Your task to perform on an android device: Empty the shopping cart on newegg. Search for "razer blade" on newegg, select the first entry, and add it to the cart. Image 0: 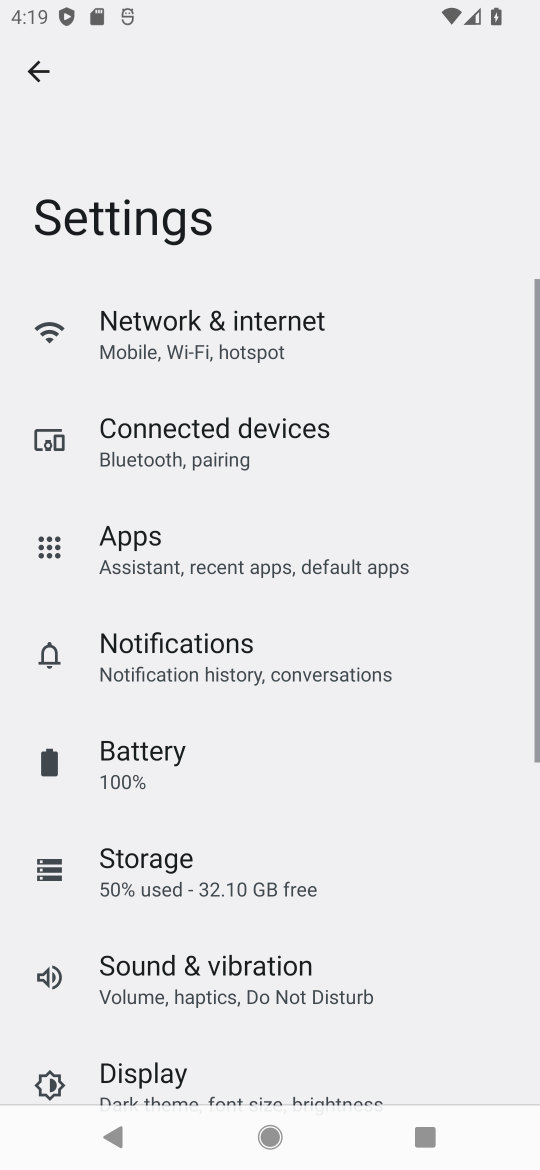
Step 0: press home button
Your task to perform on an android device: Empty the shopping cart on newegg. Search for "razer blade" on newegg, select the first entry, and add it to the cart. Image 1: 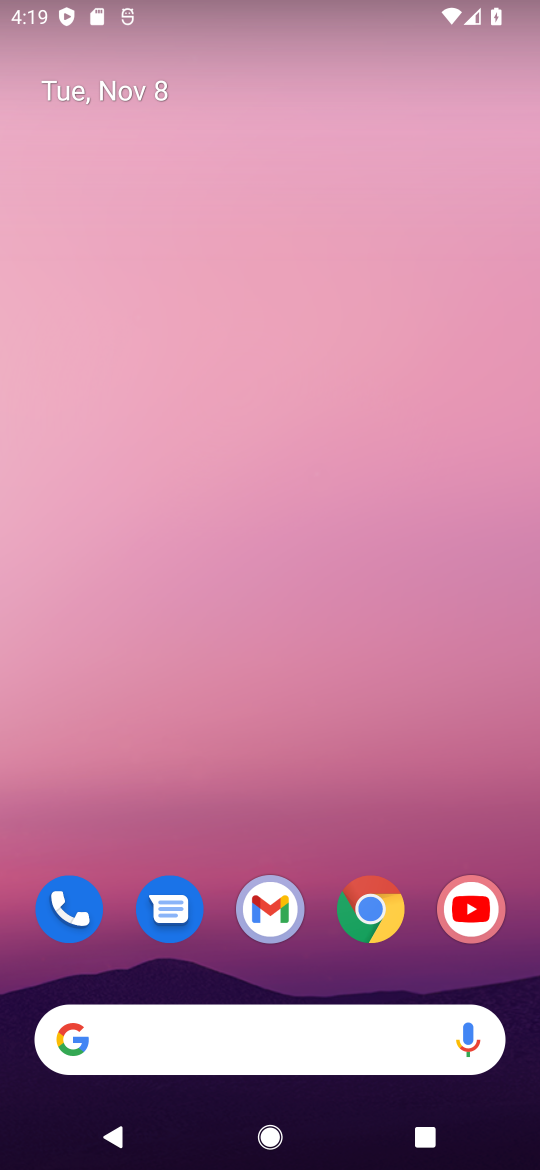
Step 1: click (378, 913)
Your task to perform on an android device: Empty the shopping cart on newegg. Search for "razer blade" on newegg, select the first entry, and add it to the cart. Image 2: 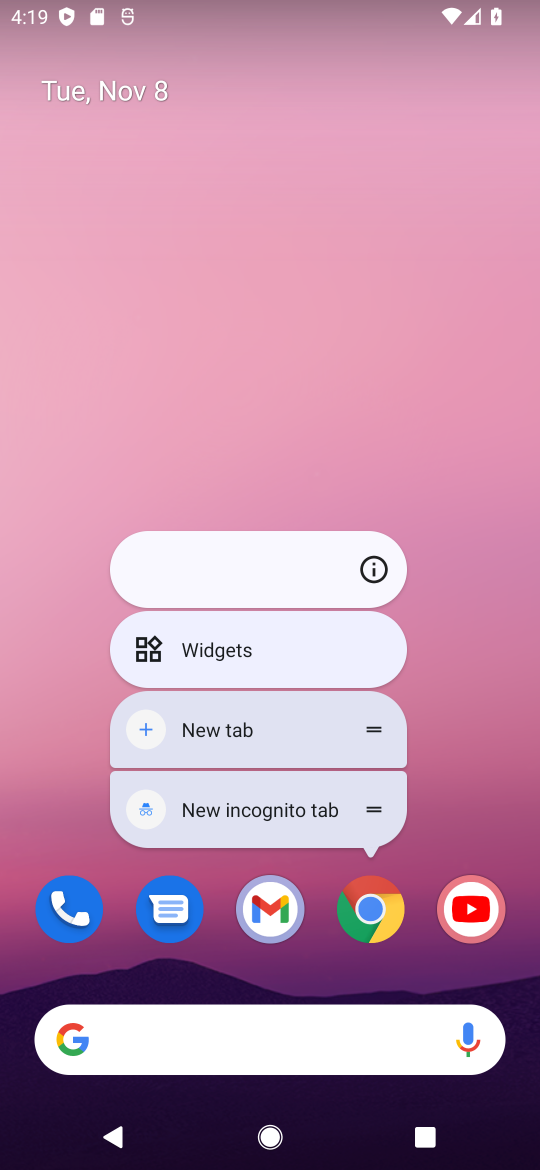
Step 2: click (378, 913)
Your task to perform on an android device: Empty the shopping cart on newegg. Search for "razer blade" on newegg, select the first entry, and add it to the cart. Image 3: 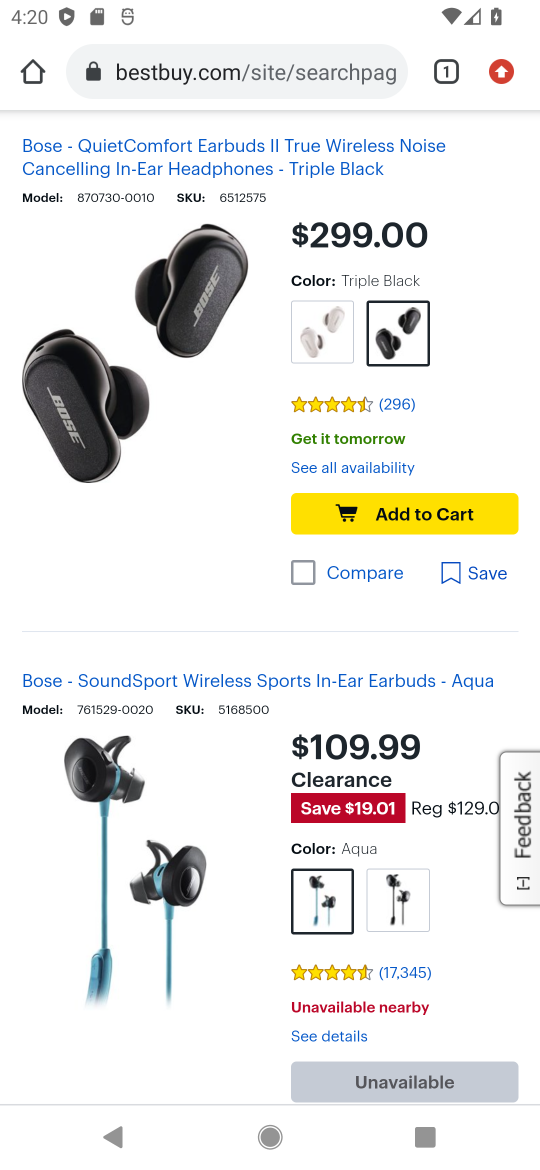
Step 3: click (262, 69)
Your task to perform on an android device: Empty the shopping cart on newegg. Search for "razer blade" on newegg, select the first entry, and add it to the cart. Image 4: 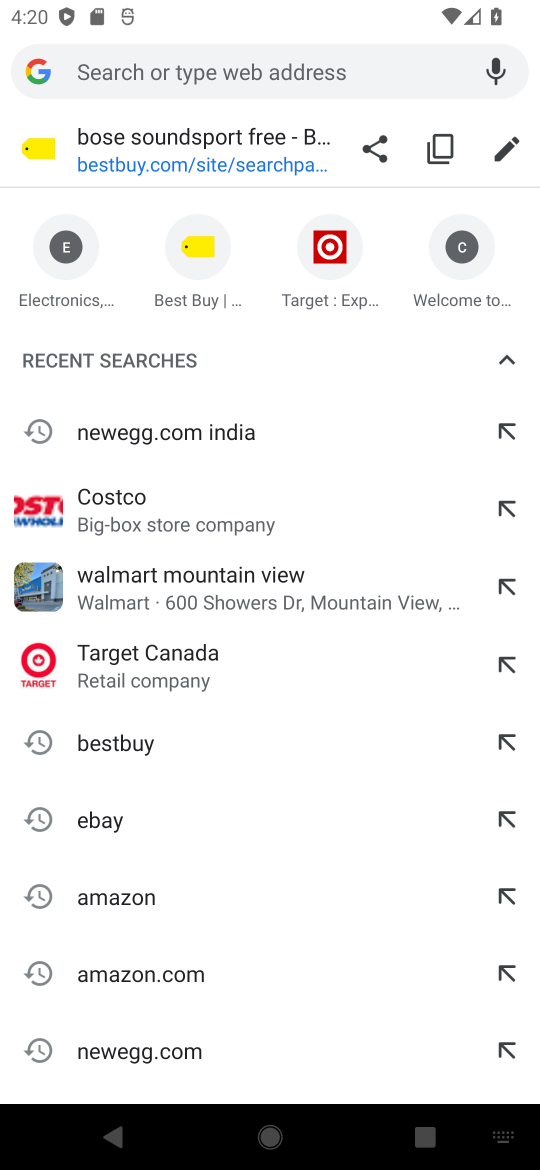
Step 4: type " newegg"
Your task to perform on an android device: Empty the shopping cart on newegg. Search for "razer blade" on newegg, select the first entry, and add it to the cart. Image 5: 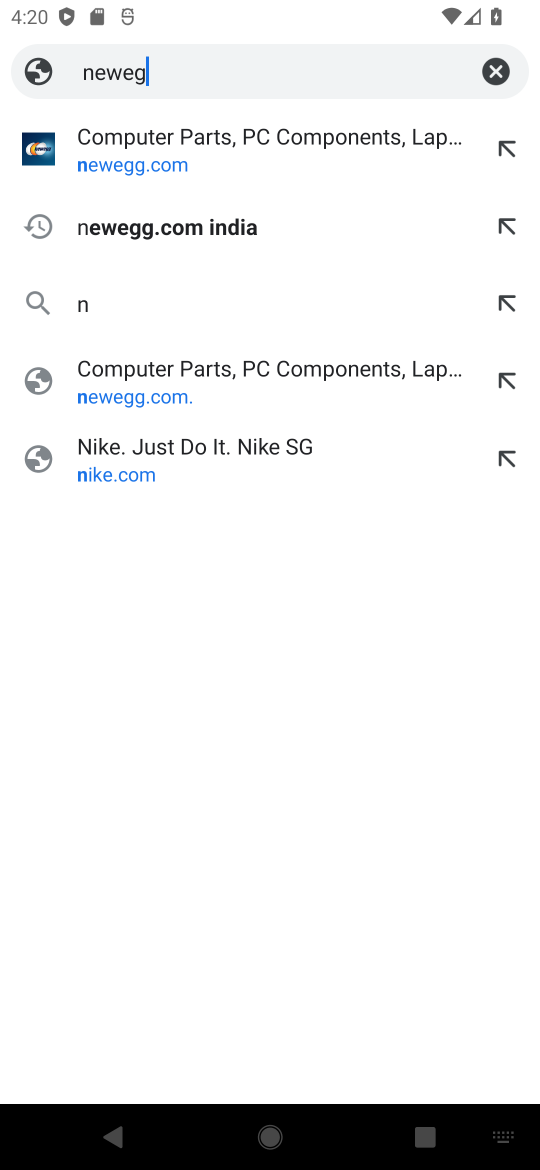
Step 5: press enter
Your task to perform on an android device: Empty the shopping cart on newegg. Search for "razer blade" on newegg, select the first entry, and add it to the cart. Image 6: 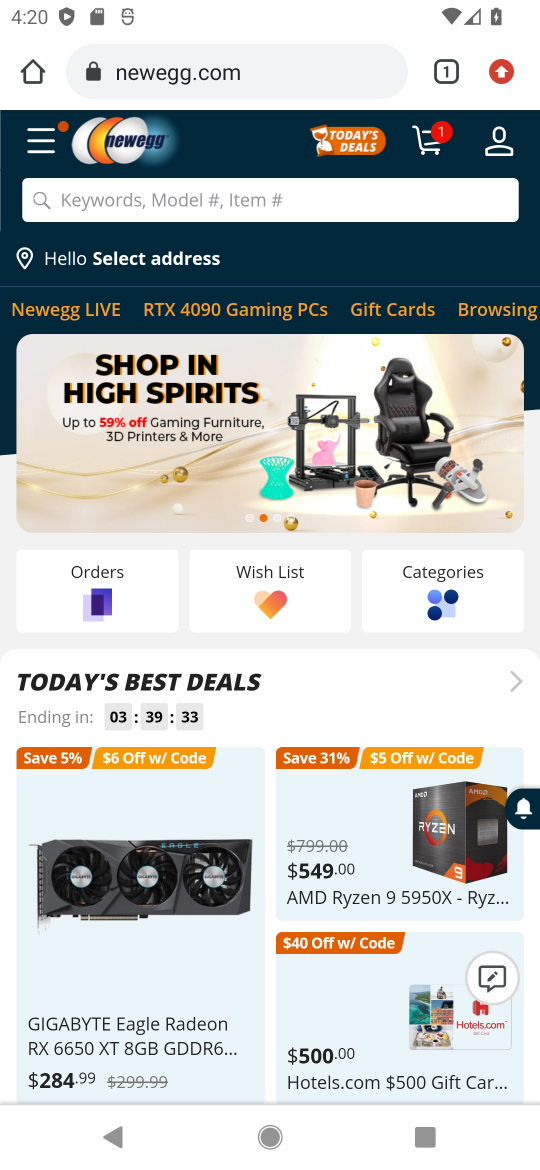
Step 6: click (189, 190)
Your task to perform on an android device: Empty the shopping cart on newegg. Search for "razer blade" on newegg, select the first entry, and add it to the cart. Image 7: 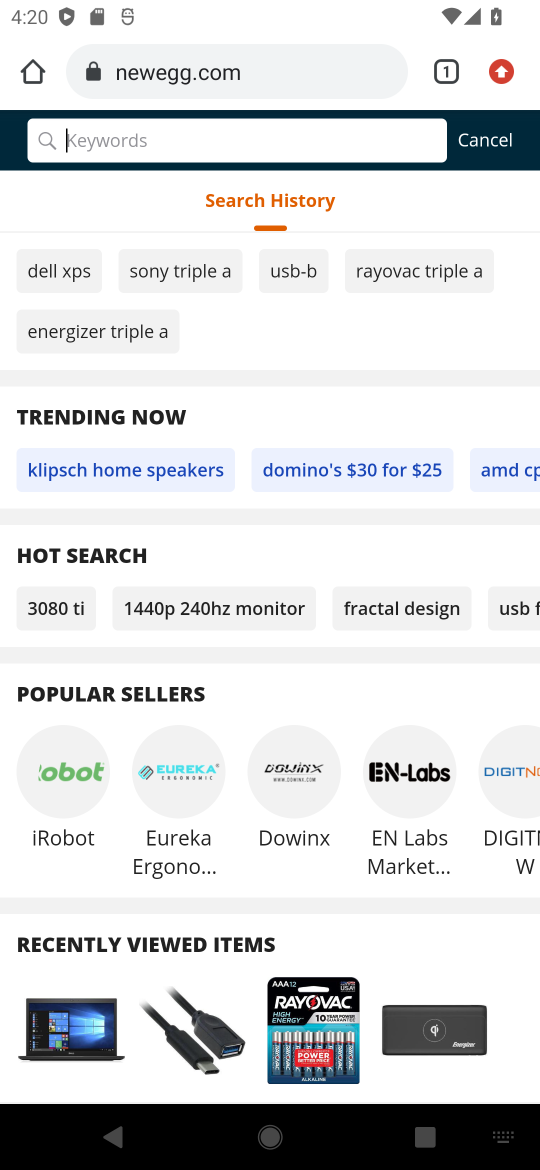
Step 7: press enter
Your task to perform on an android device: Empty the shopping cart on newegg. Search for "razer blade" on newegg, select the first entry, and add it to the cart. Image 8: 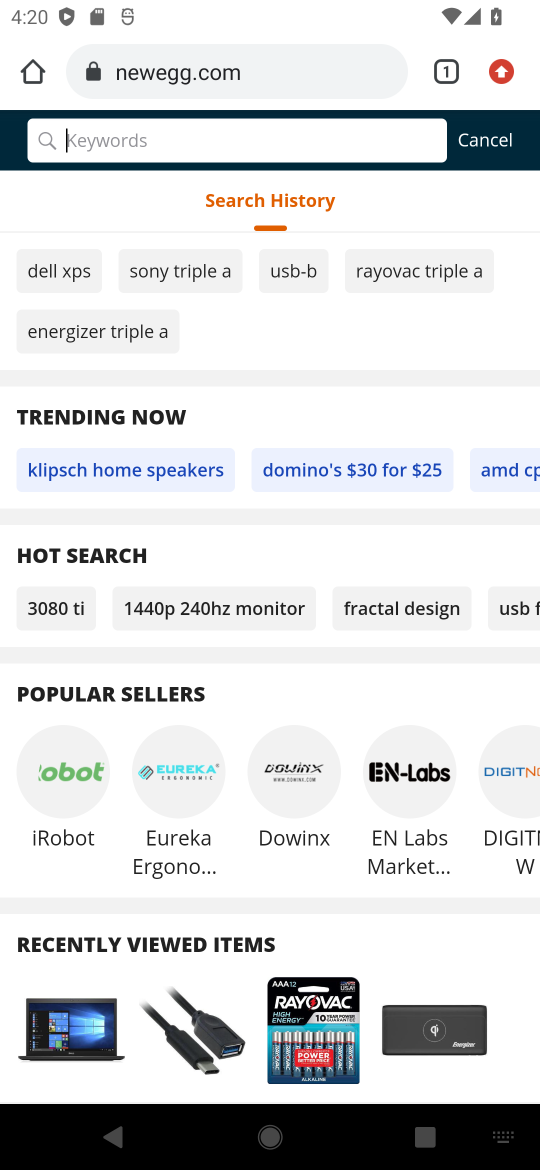
Step 8: type "razer blade"
Your task to perform on an android device: Empty the shopping cart on newegg. Search for "razer blade" on newegg, select the first entry, and add it to the cart. Image 9: 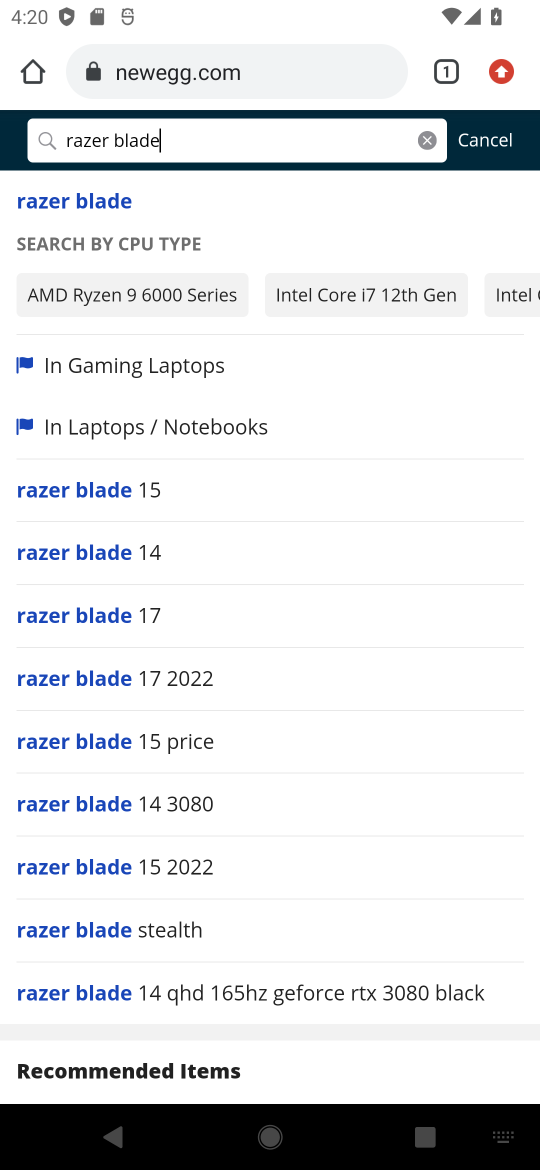
Step 9: press enter
Your task to perform on an android device: Empty the shopping cart on newegg. Search for "razer blade" on newegg, select the first entry, and add it to the cart. Image 10: 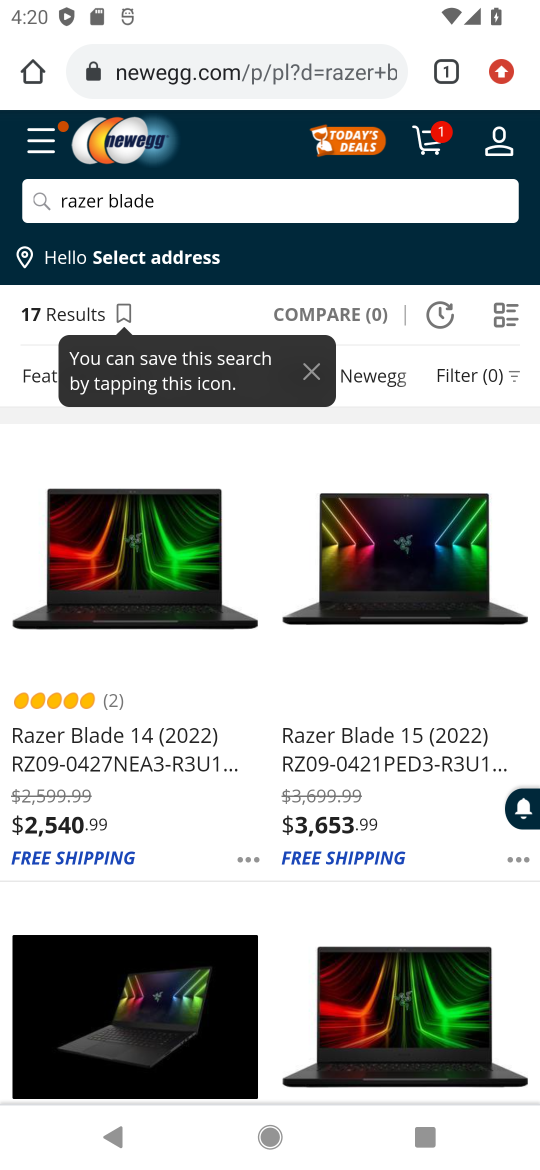
Step 10: click (110, 751)
Your task to perform on an android device: Empty the shopping cart on newegg. Search for "razer blade" on newegg, select the first entry, and add it to the cart. Image 11: 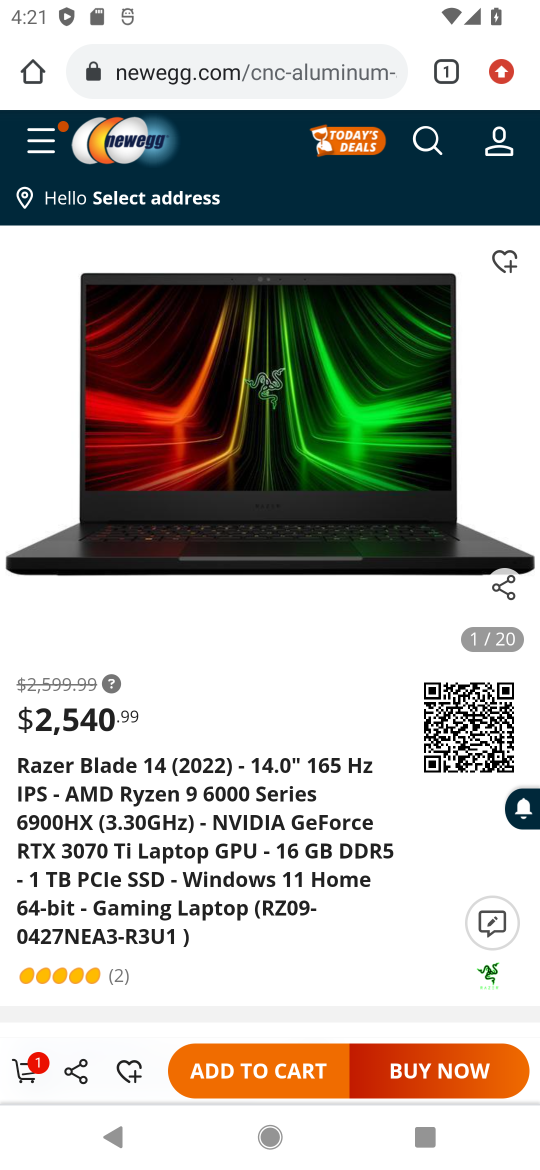
Step 11: click (267, 1069)
Your task to perform on an android device: Empty the shopping cart on newegg. Search for "razer blade" on newegg, select the first entry, and add it to the cart. Image 12: 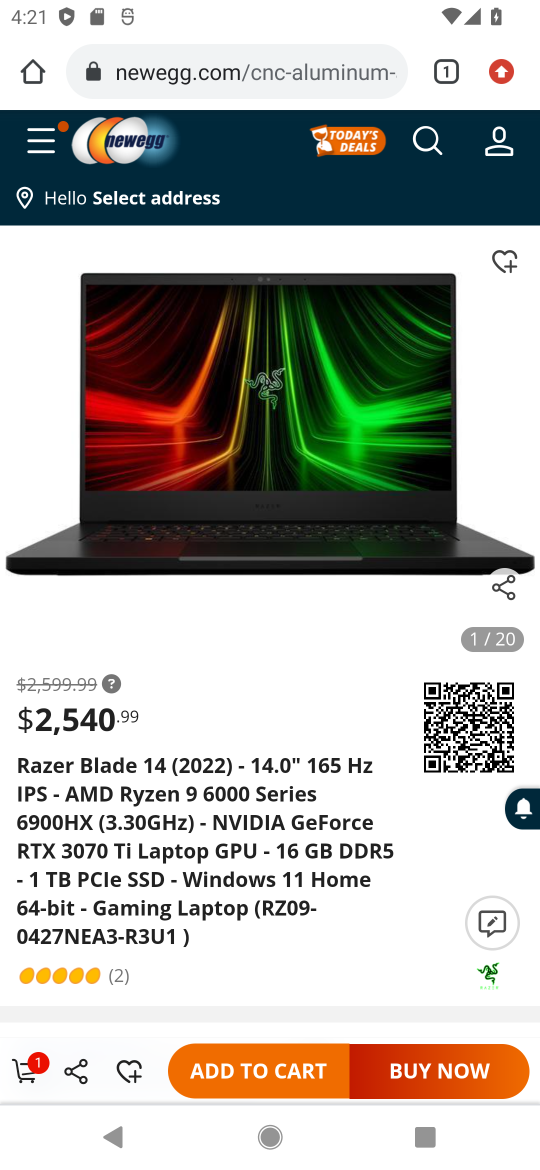
Step 12: click (262, 1069)
Your task to perform on an android device: Empty the shopping cart on newegg. Search for "razer blade" on newegg, select the first entry, and add it to the cart. Image 13: 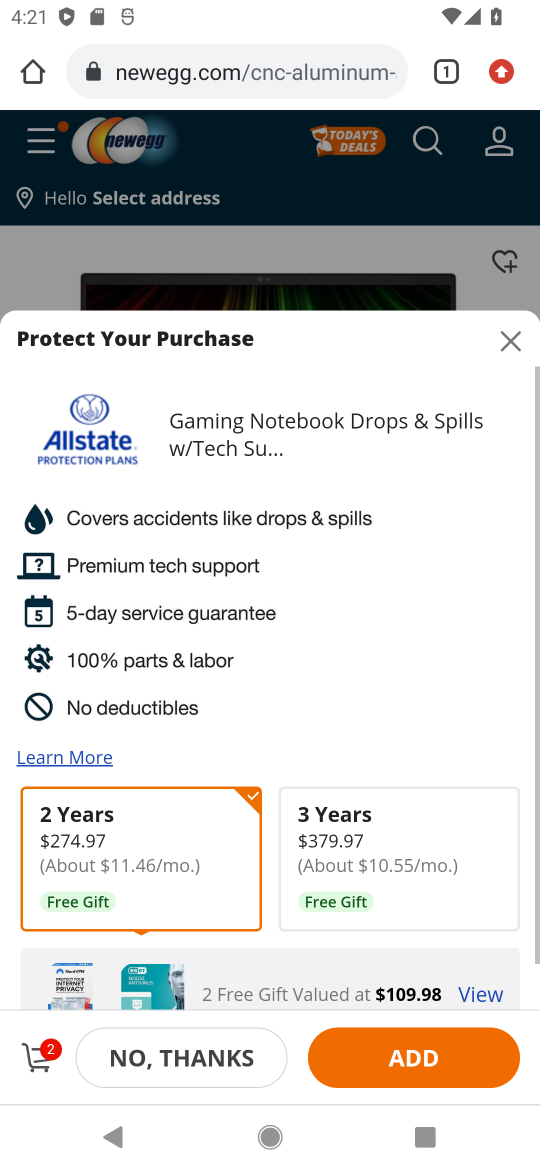
Step 13: click (38, 1063)
Your task to perform on an android device: Empty the shopping cart on newegg. Search for "razer blade" on newegg, select the first entry, and add it to the cart. Image 14: 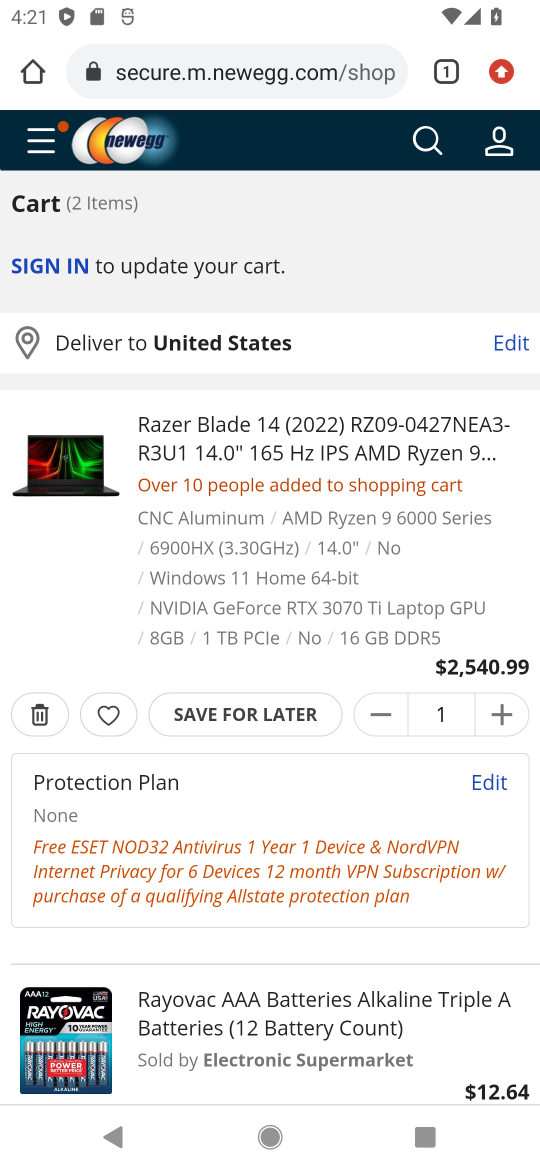
Step 14: drag from (163, 910) to (368, 447)
Your task to perform on an android device: Empty the shopping cart on newegg. Search for "razer blade" on newegg, select the first entry, and add it to the cart. Image 15: 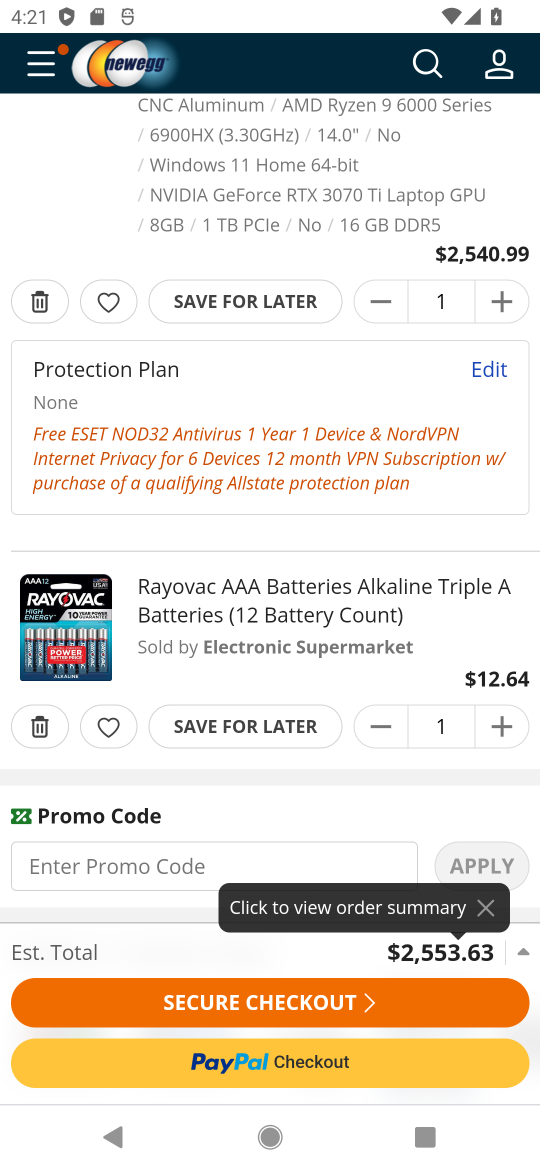
Step 15: click (31, 721)
Your task to perform on an android device: Empty the shopping cart on newegg. Search for "razer blade" on newegg, select the first entry, and add it to the cart. Image 16: 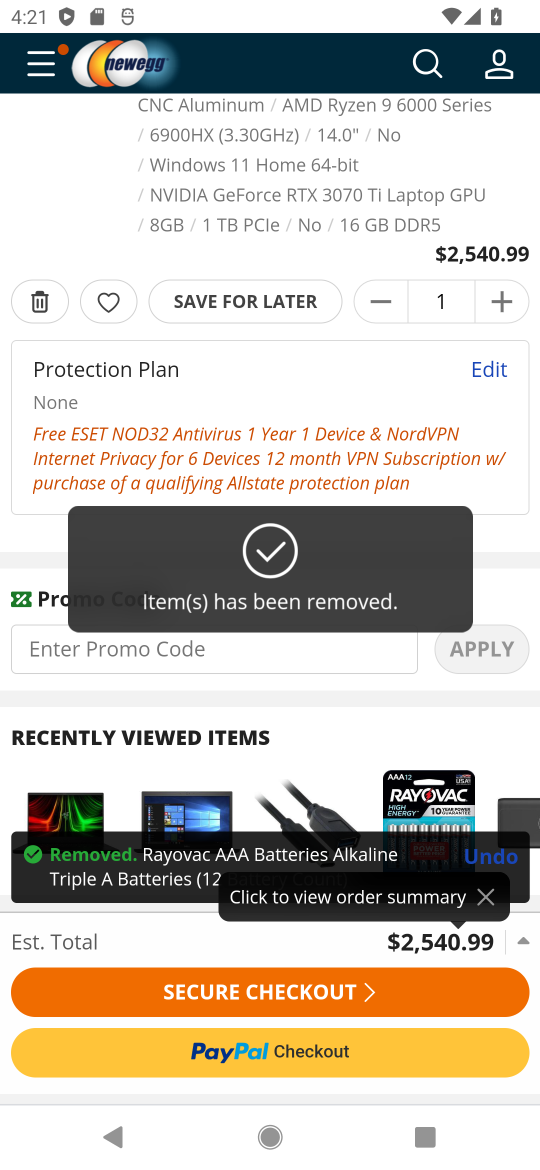
Step 16: task complete